Your task to perform on an android device: delete browsing data in the chrome app Image 0: 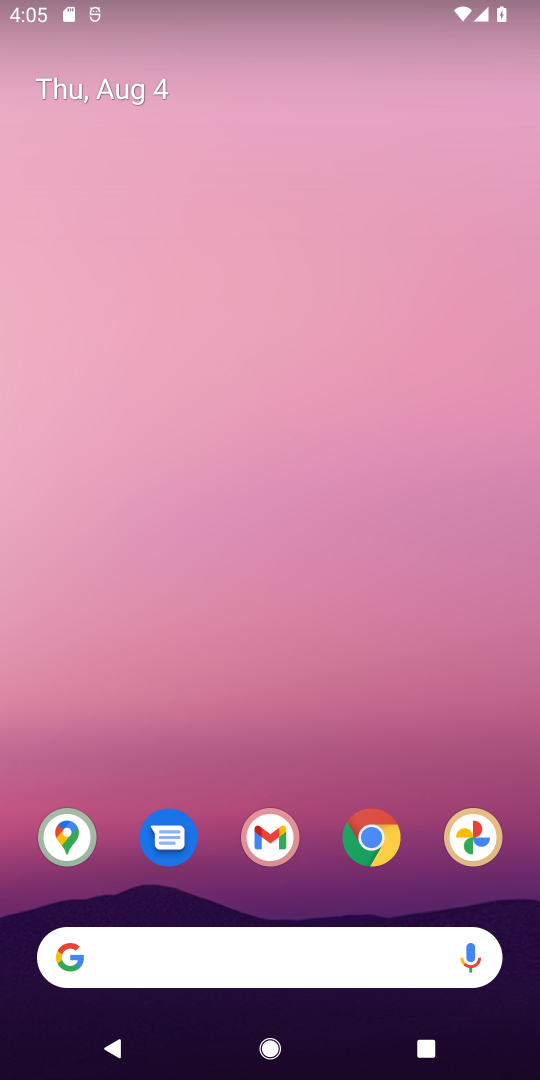
Step 0: click (364, 829)
Your task to perform on an android device: delete browsing data in the chrome app Image 1: 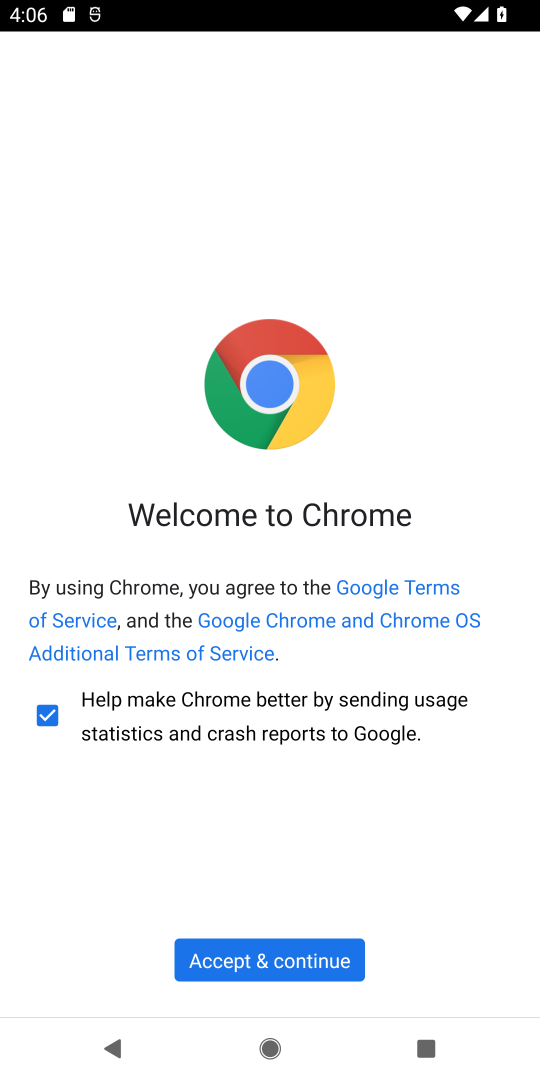
Step 1: click (259, 963)
Your task to perform on an android device: delete browsing data in the chrome app Image 2: 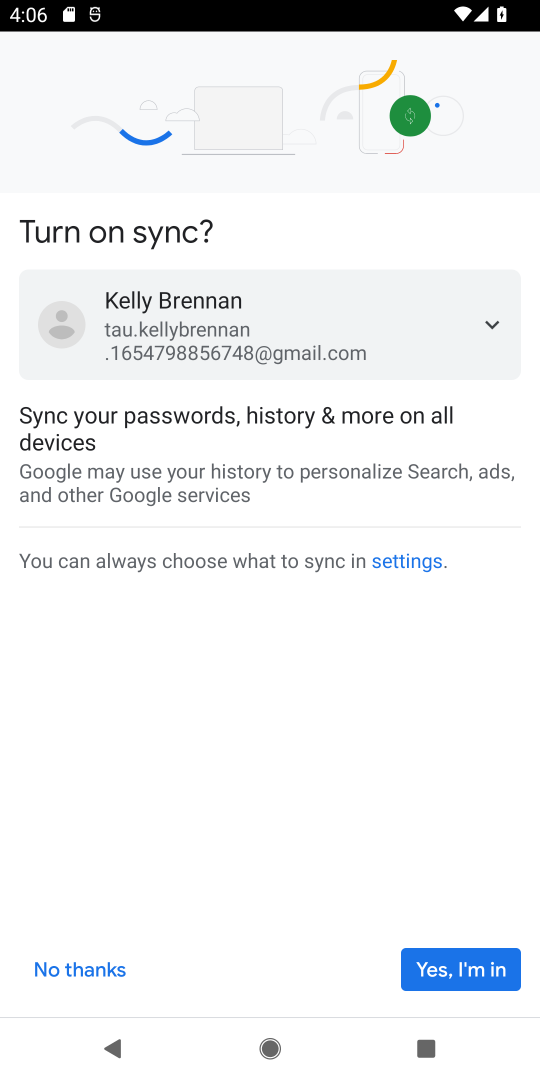
Step 2: click (428, 954)
Your task to perform on an android device: delete browsing data in the chrome app Image 3: 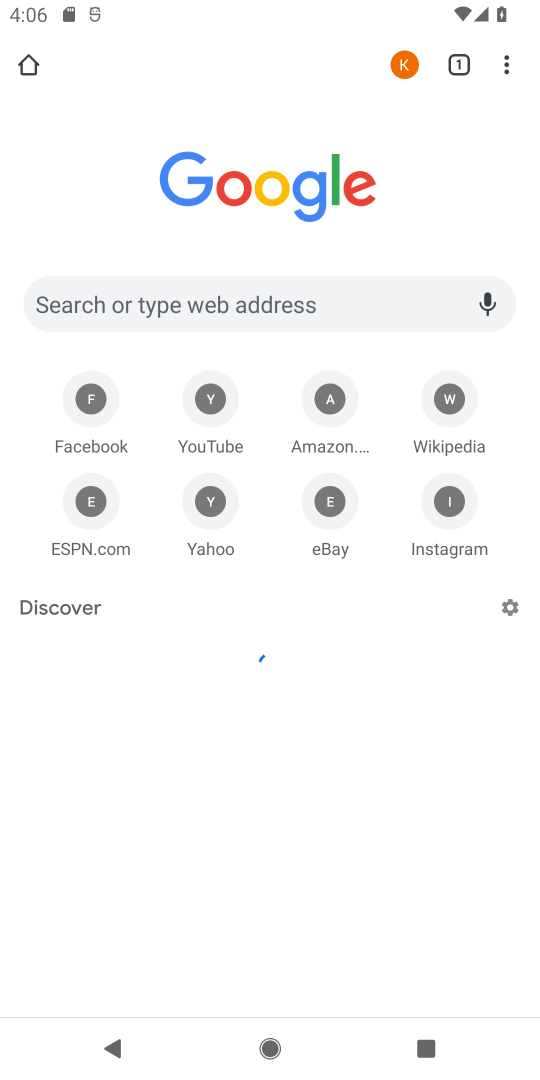
Step 3: click (506, 53)
Your task to perform on an android device: delete browsing data in the chrome app Image 4: 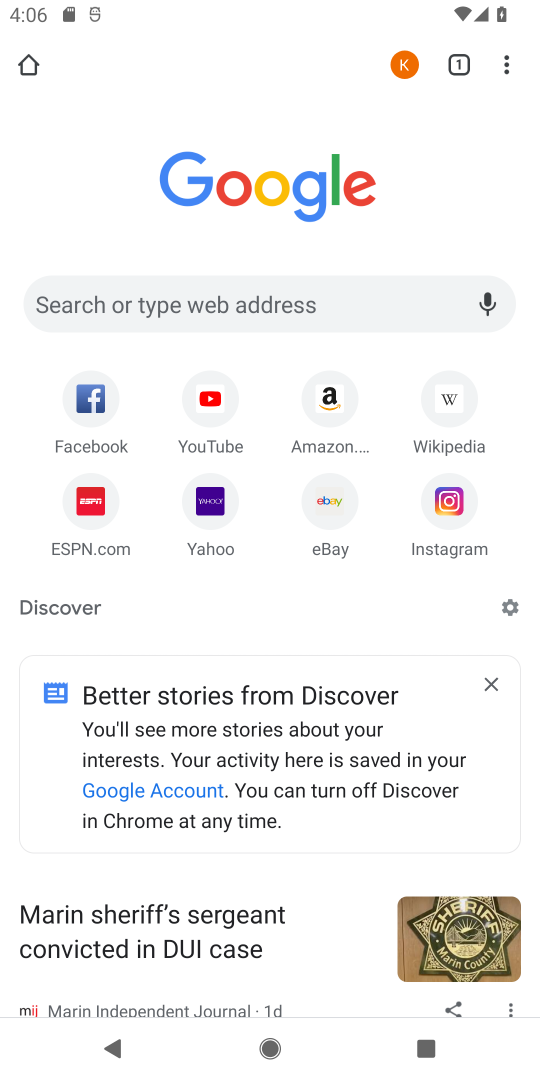
Step 4: click (504, 65)
Your task to perform on an android device: delete browsing data in the chrome app Image 5: 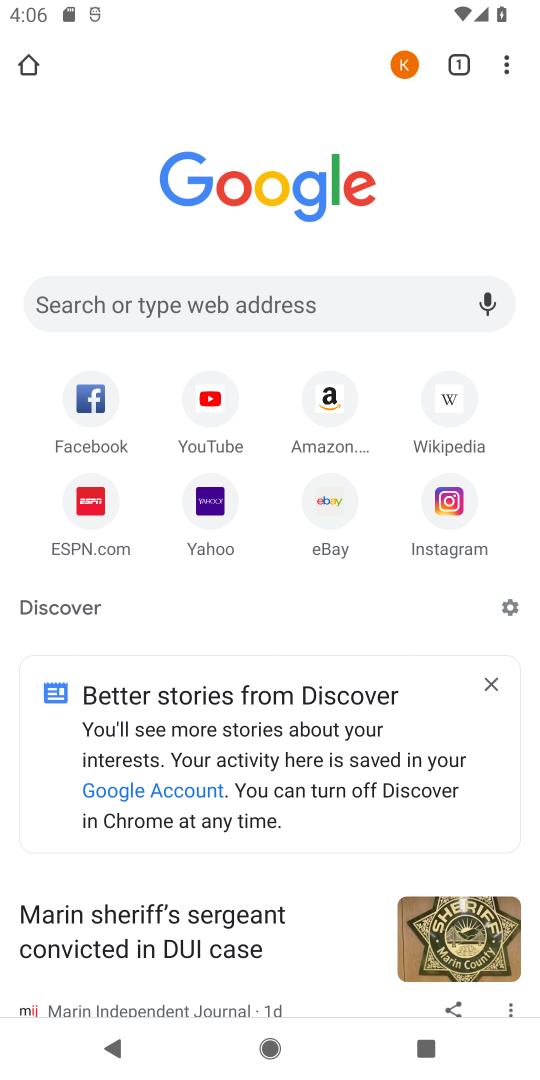
Step 5: click (504, 61)
Your task to perform on an android device: delete browsing data in the chrome app Image 6: 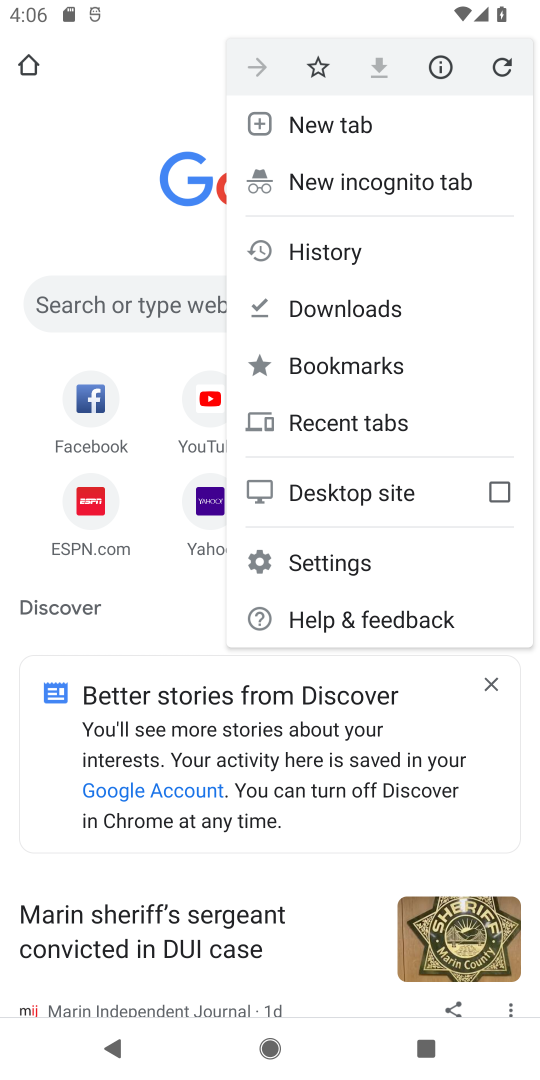
Step 6: click (344, 247)
Your task to perform on an android device: delete browsing data in the chrome app Image 7: 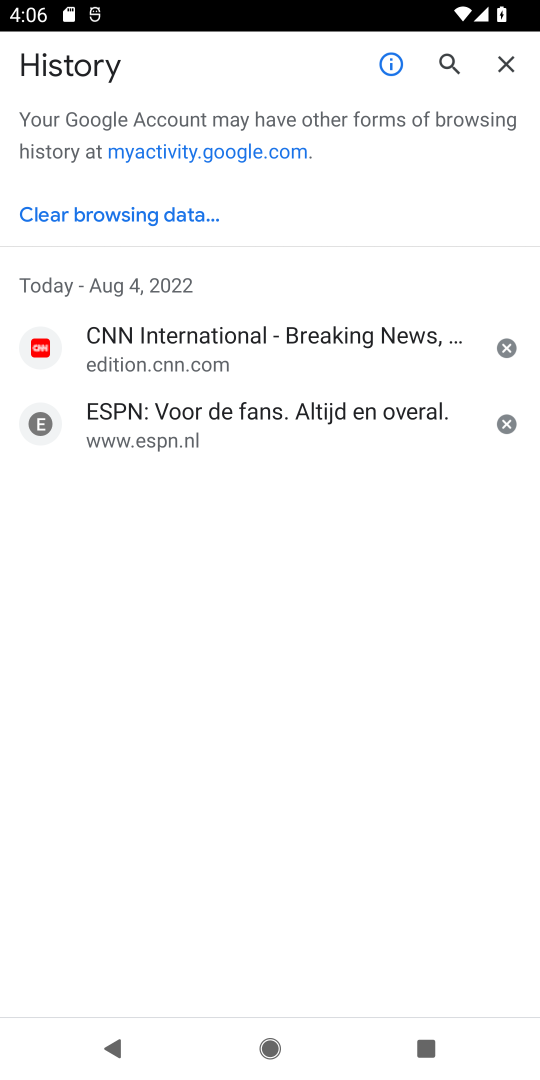
Step 7: click (101, 205)
Your task to perform on an android device: delete browsing data in the chrome app Image 8: 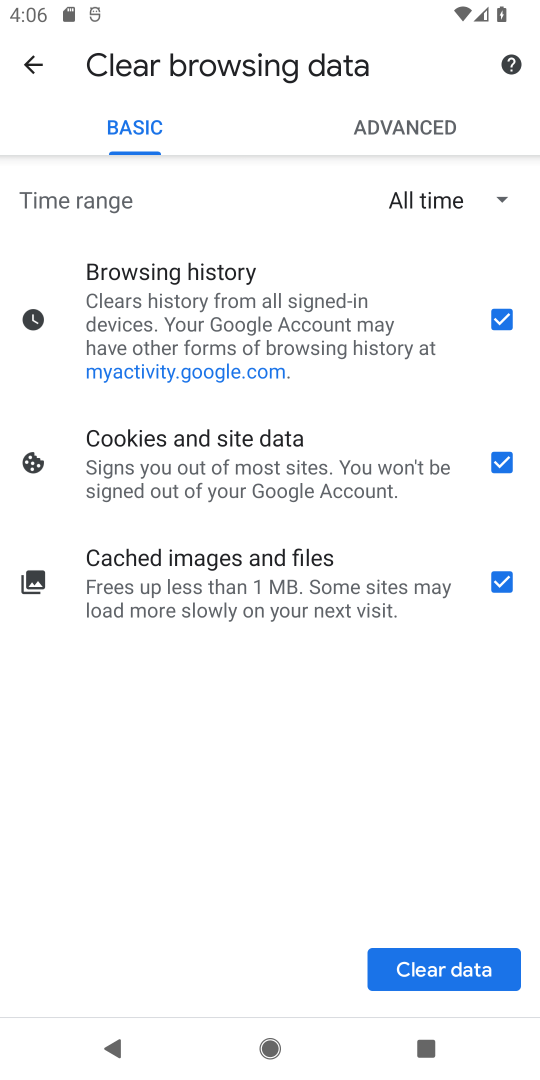
Step 8: click (500, 466)
Your task to perform on an android device: delete browsing data in the chrome app Image 9: 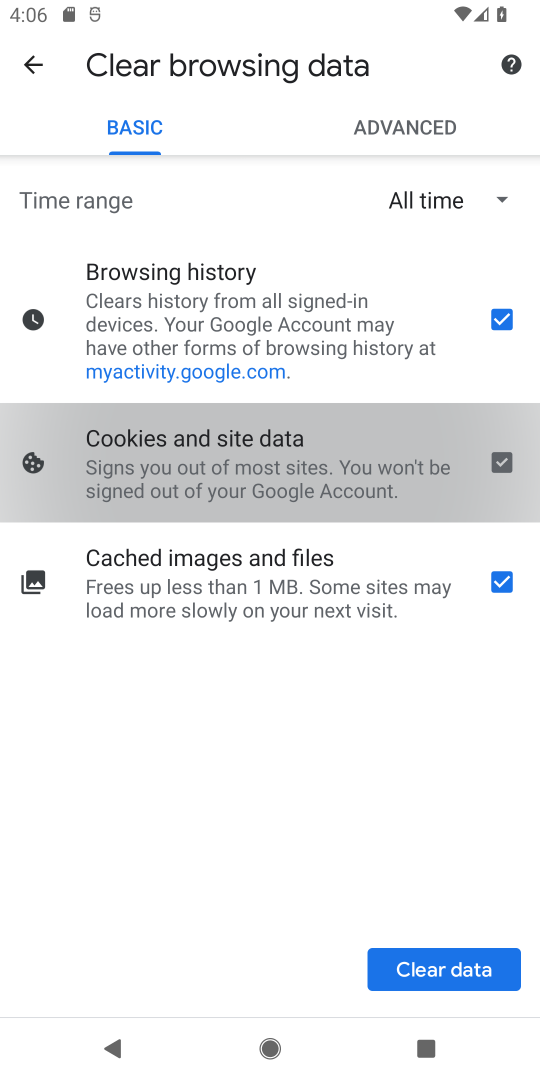
Step 9: click (498, 575)
Your task to perform on an android device: delete browsing data in the chrome app Image 10: 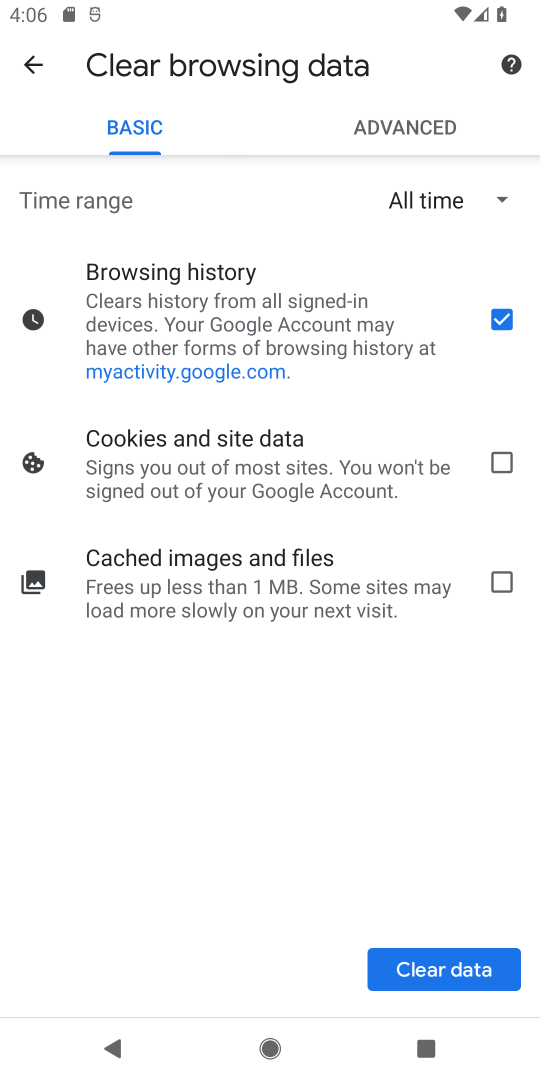
Step 10: click (453, 959)
Your task to perform on an android device: delete browsing data in the chrome app Image 11: 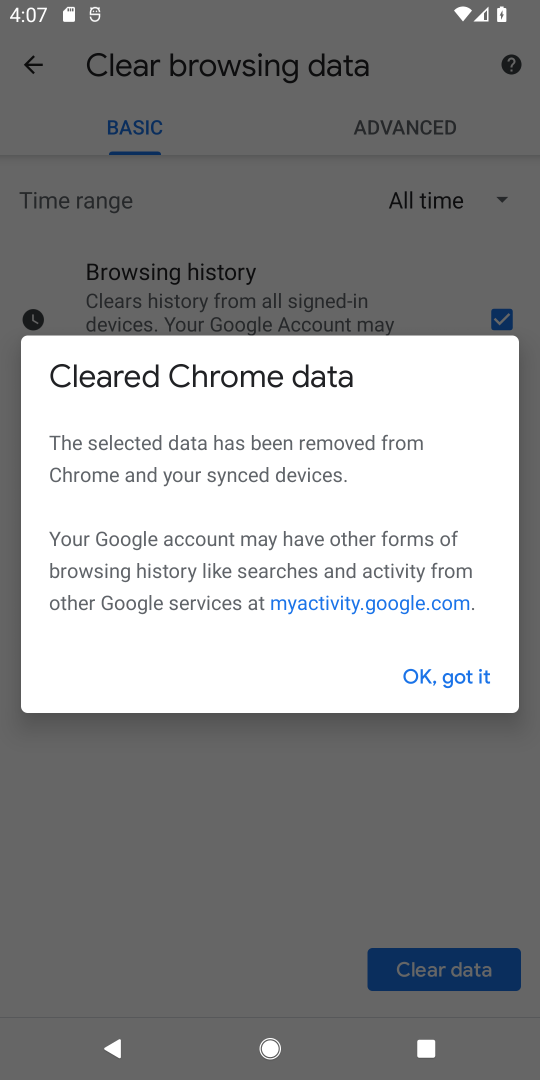
Step 11: click (438, 678)
Your task to perform on an android device: delete browsing data in the chrome app Image 12: 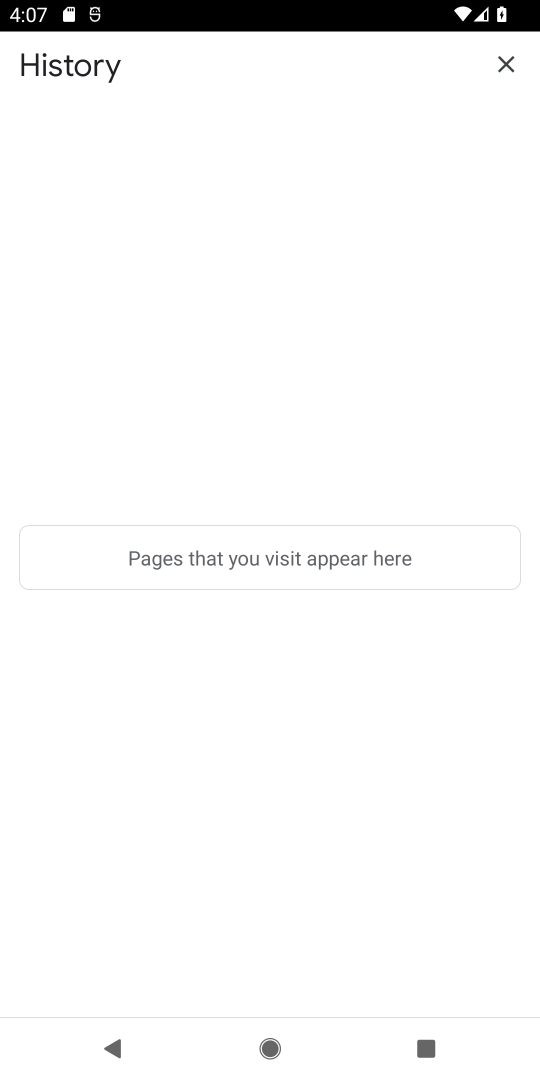
Step 12: task complete